Your task to perform on an android device: change text size in settings app Image 0: 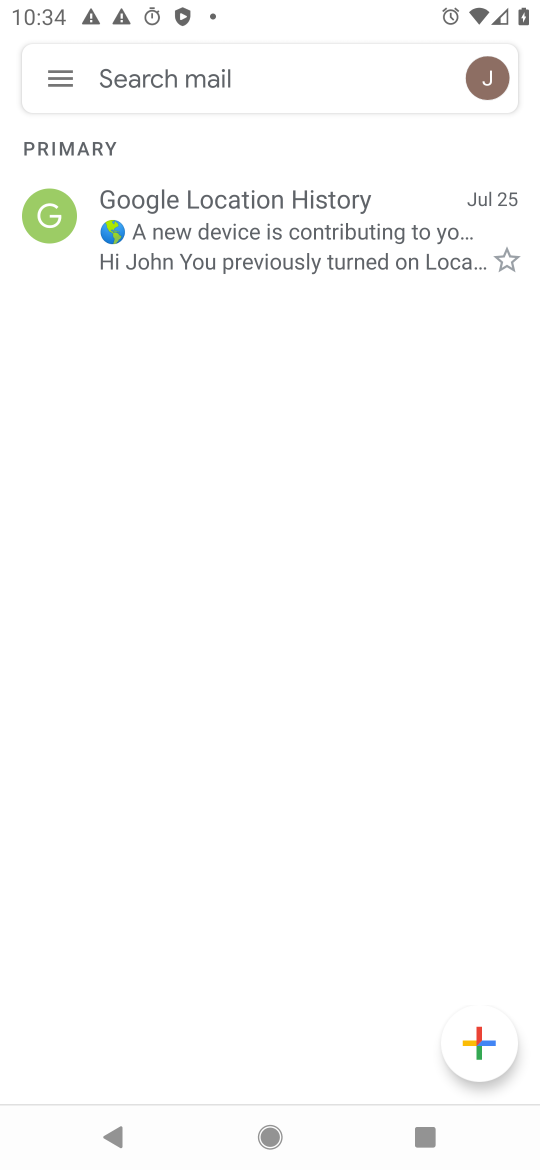
Step 0: drag from (225, 802) to (230, 659)
Your task to perform on an android device: change text size in settings app Image 1: 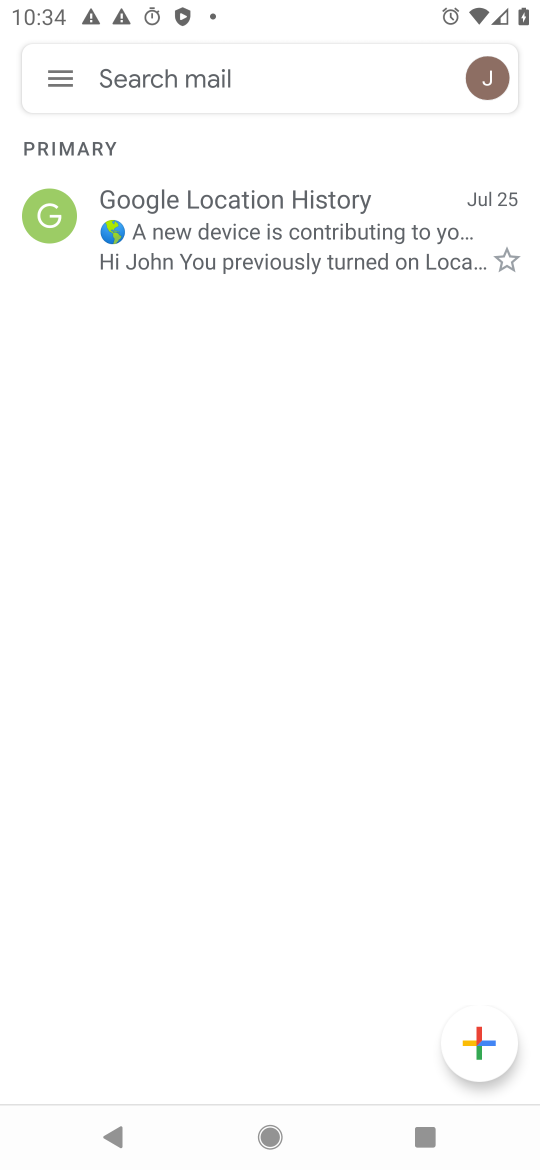
Step 1: drag from (261, 323) to (385, 1044)
Your task to perform on an android device: change text size in settings app Image 2: 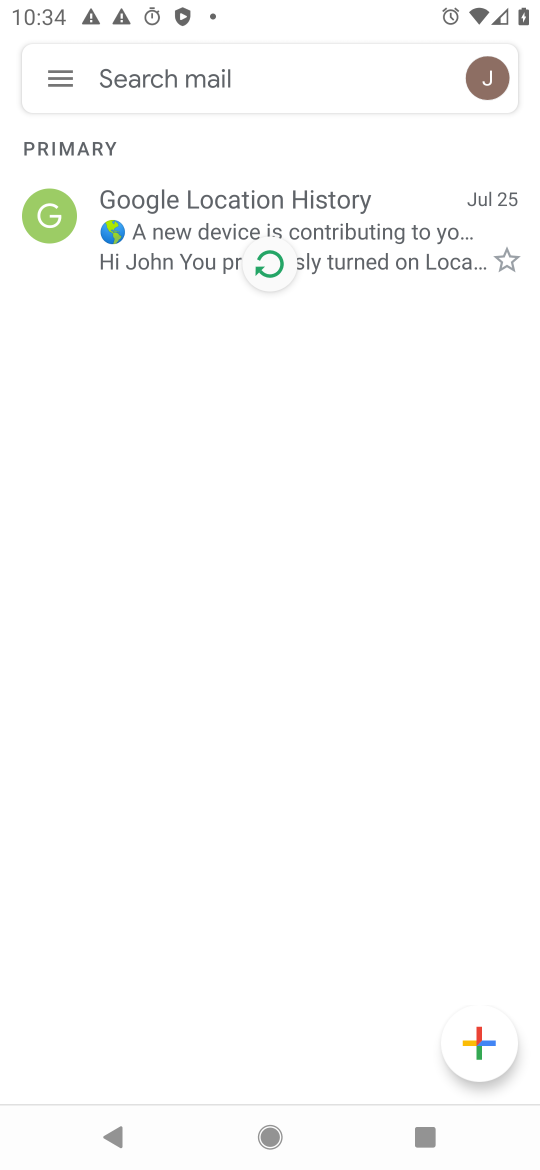
Step 2: drag from (254, 531) to (266, 285)
Your task to perform on an android device: change text size in settings app Image 3: 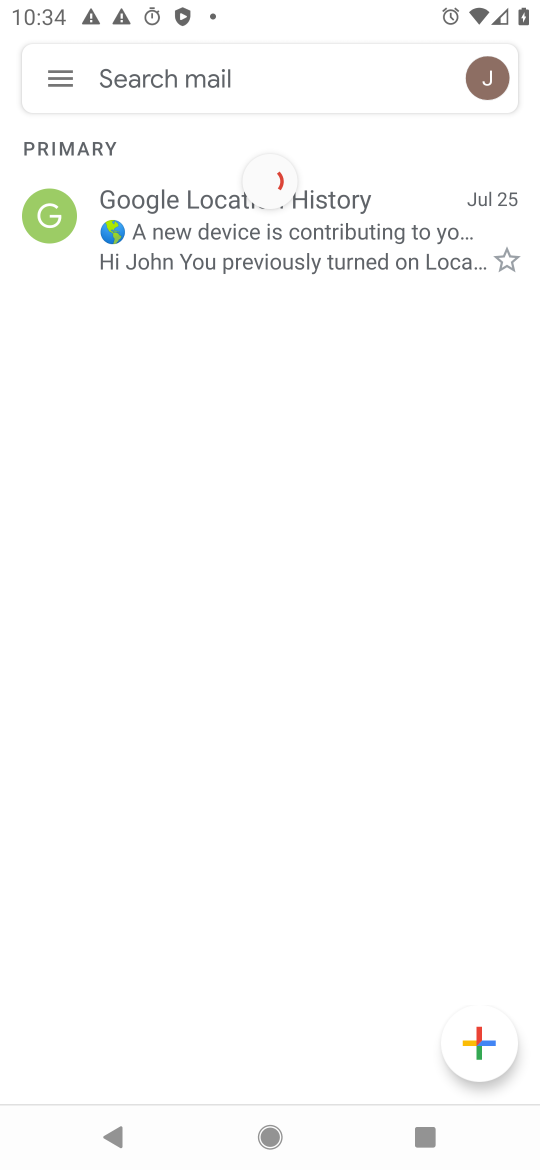
Step 3: drag from (308, 731) to (345, 320)
Your task to perform on an android device: change text size in settings app Image 4: 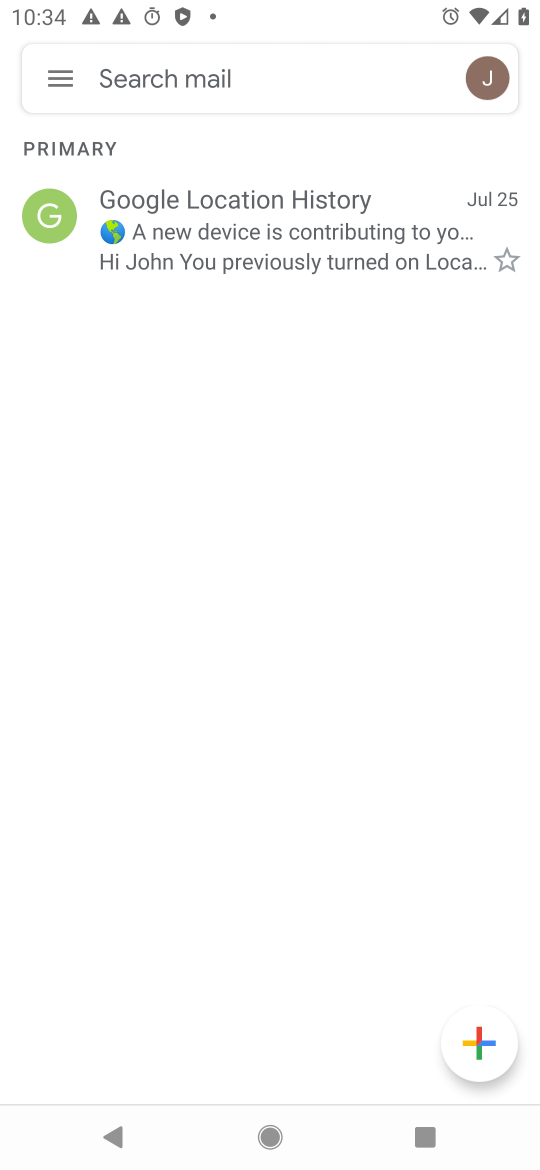
Step 4: drag from (385, 740) to (295, 402)
Your task to perform on an android device: change text size in settings app Image 5: 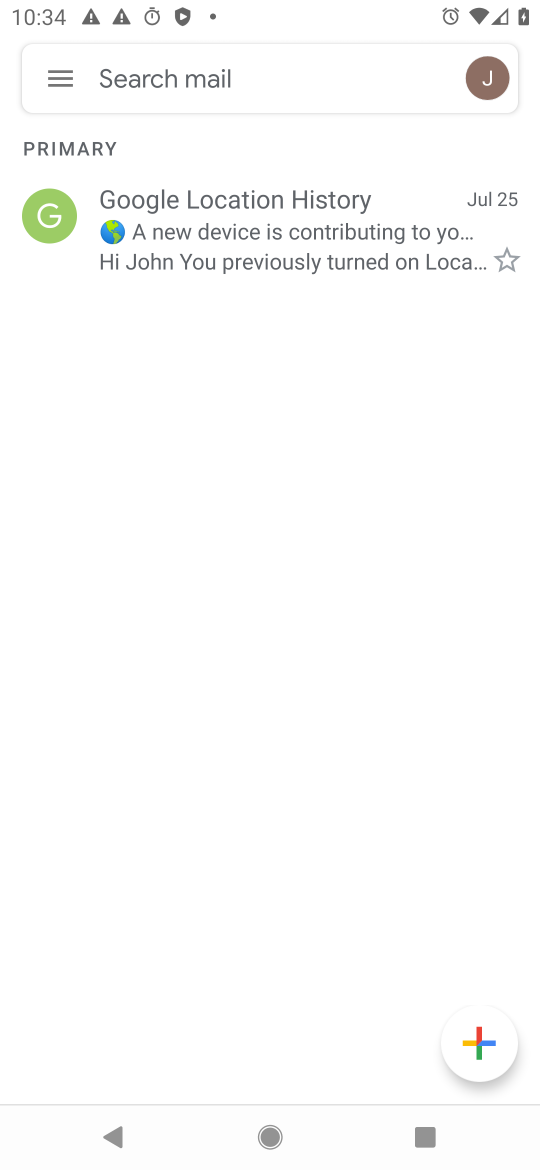
Step 5: drag from (328, 827) to (301, 448)
Your task to perform on an android device: change text size in settings app Image 6: 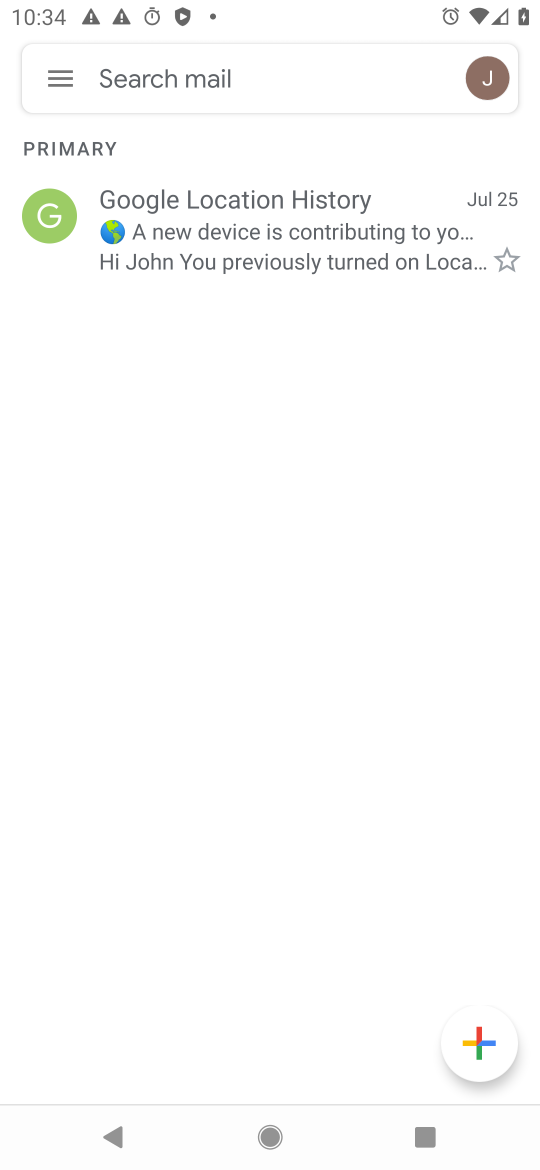
Step 6: drag from (251, 835) to (296, 554)
Your task to perform on an android device: change text size in settings app Image 7: 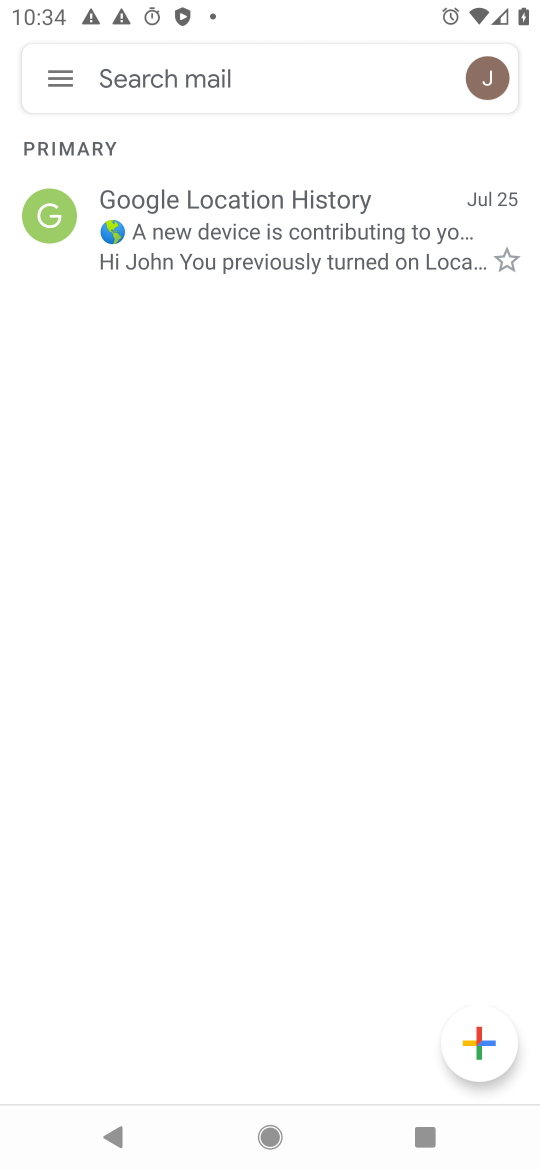
Step 7: drag from (203, 115) to (203, 53)
Your task to perform on an android device: change text size in settings app Image 8: 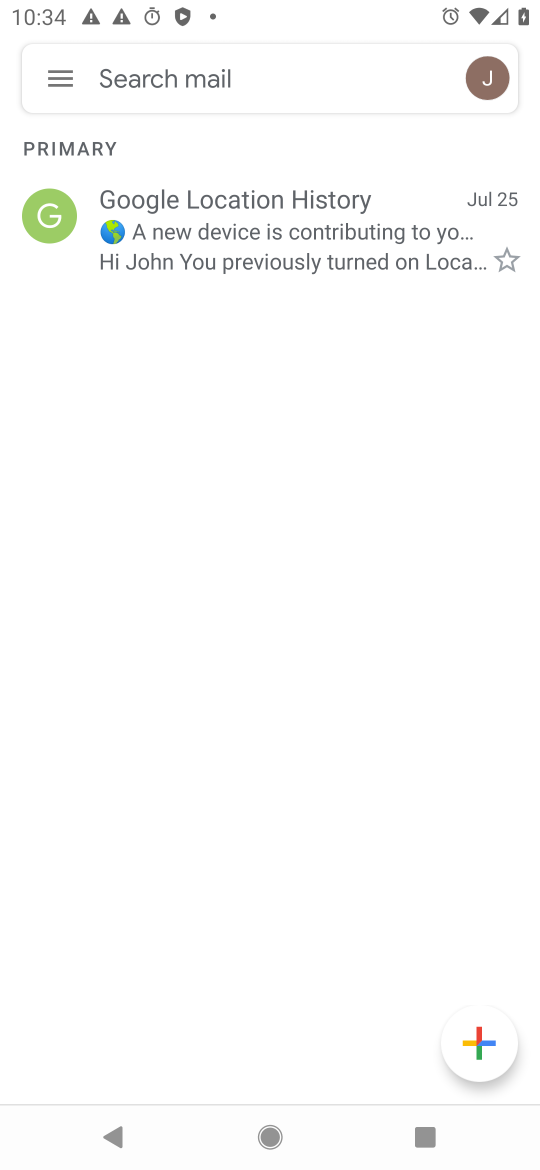
Step 8: click (71, 85)
Your task to perform on an android device: change text size in settings app Image 9: 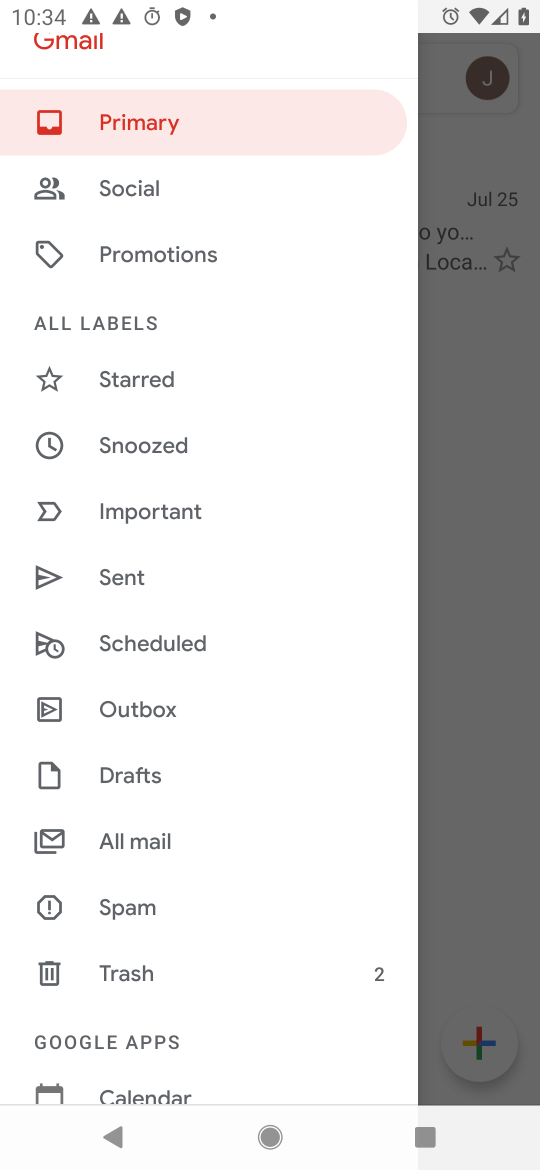
Step 9: press home button
Your task to perform on an android device: change text size in settings app Image 10: 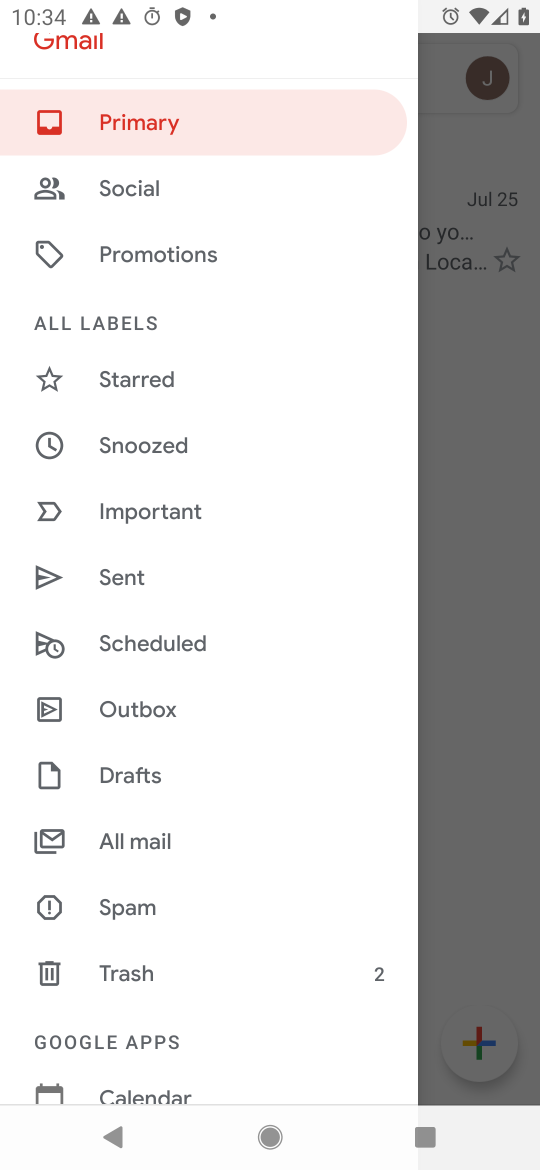
Step 10: press home button
Your task to perform on an android device: change text size in settings app Image 11: 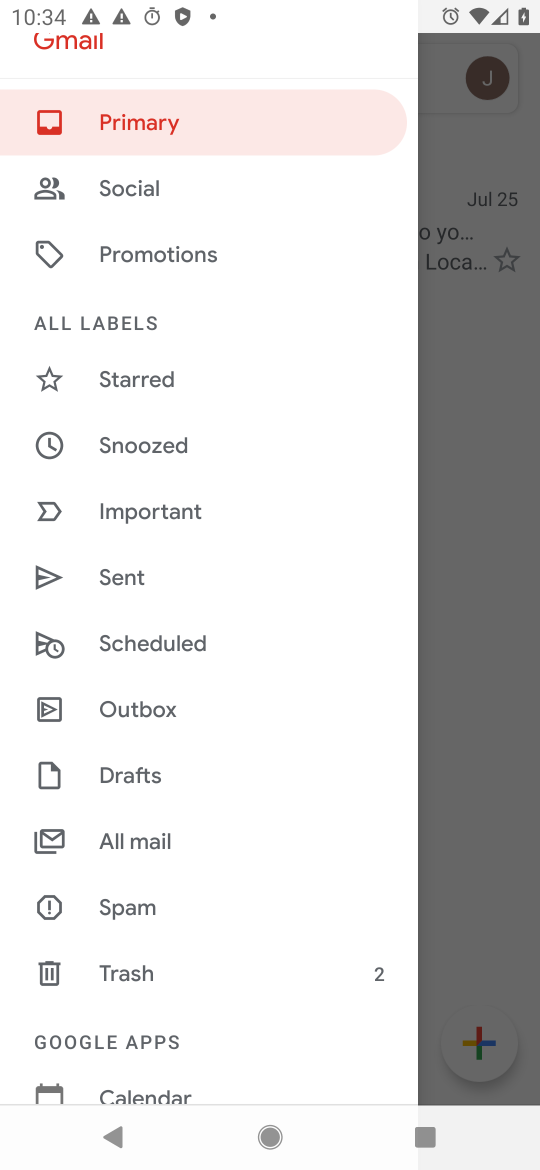
Step 11: click (415, 124)
Your task to perform on an android device: change text size in settings app Image 12: 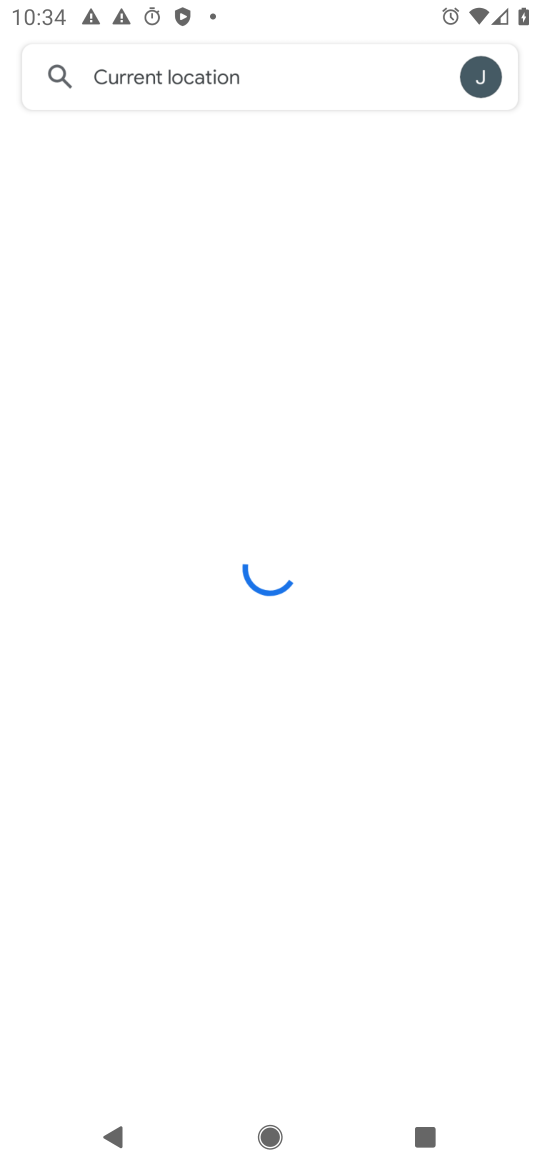
Step 12: drag from (213, 928) to (327, 331)
Your task to perform on an android device: change text size in settings app Image 13: 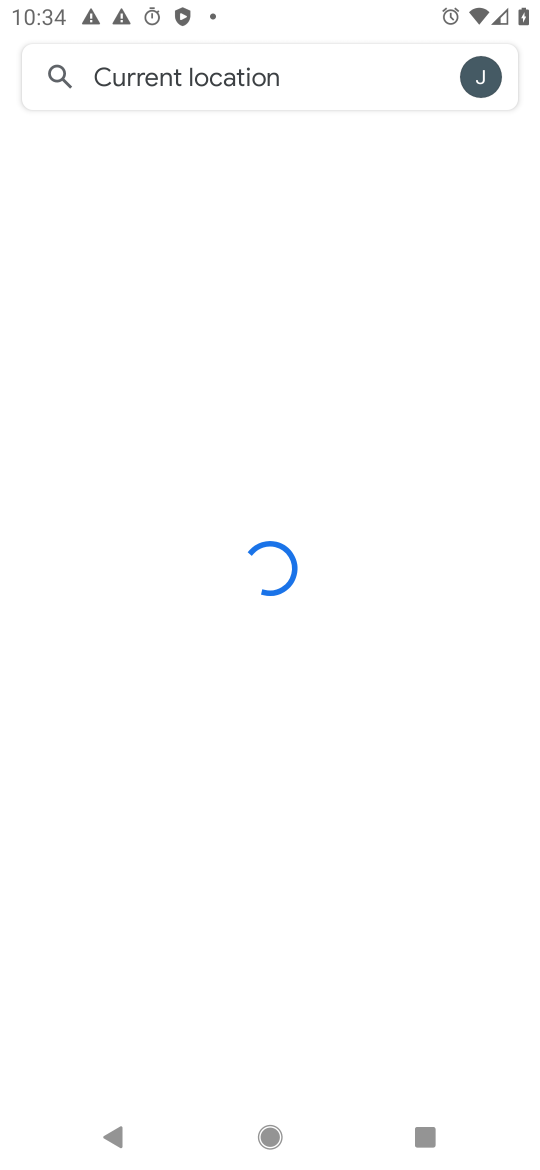
Step 13: press home button
Your task to perform on an android device: change text size in settings app Image 14: 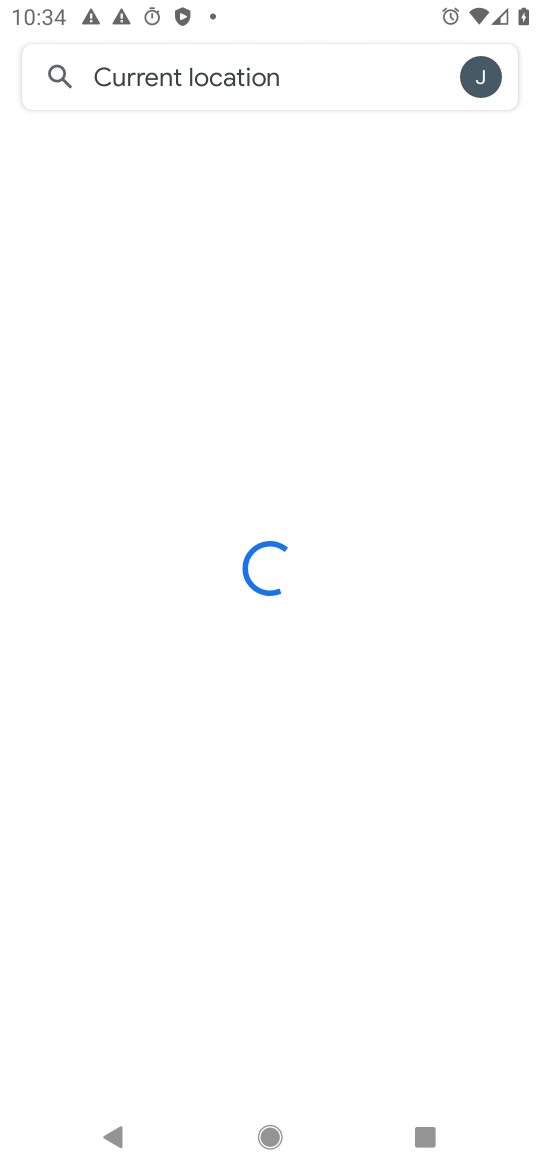
Step 14: press home button
Your task to perform on an android device: change text size in settings app Image 15: 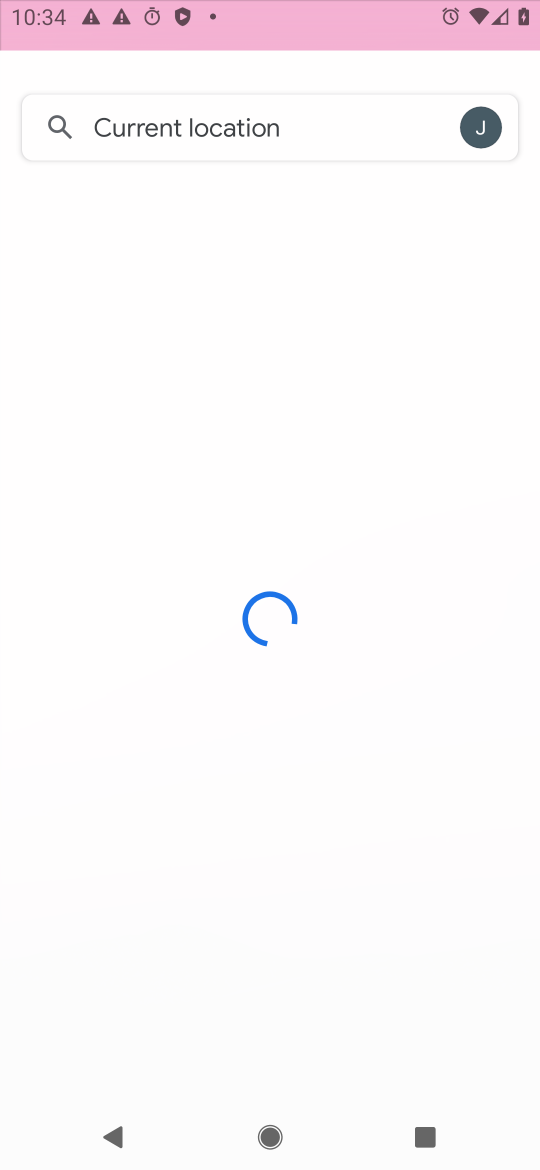
Step 15: click (273, 299)
Your task to perform on an android device: change text size in settings app Image 16: 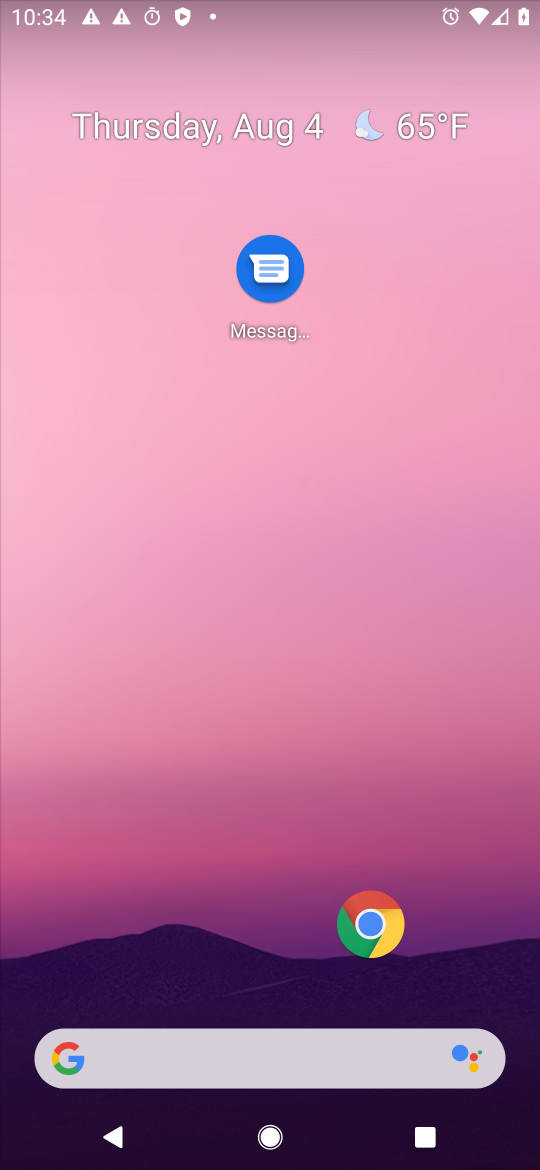
Step 16: drag from (256, 846) to (279, 210)
Your task to perform on an android device: change text size in settings app Image 17: 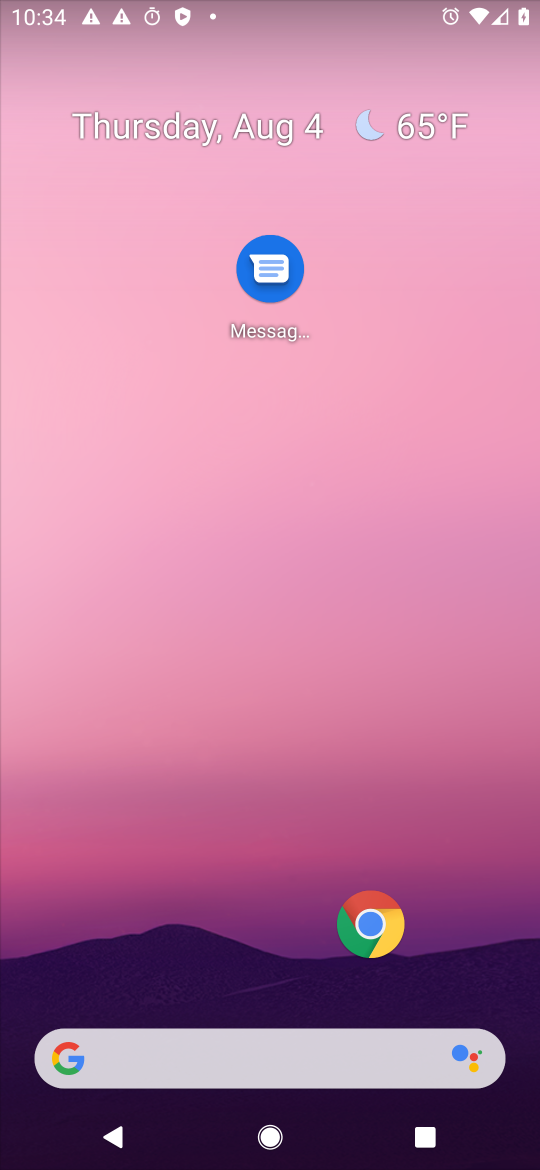
Step 17: drag from (240, 747) to (318, 237)
Your task to perform on an android device: change text size in settings app Image 18: 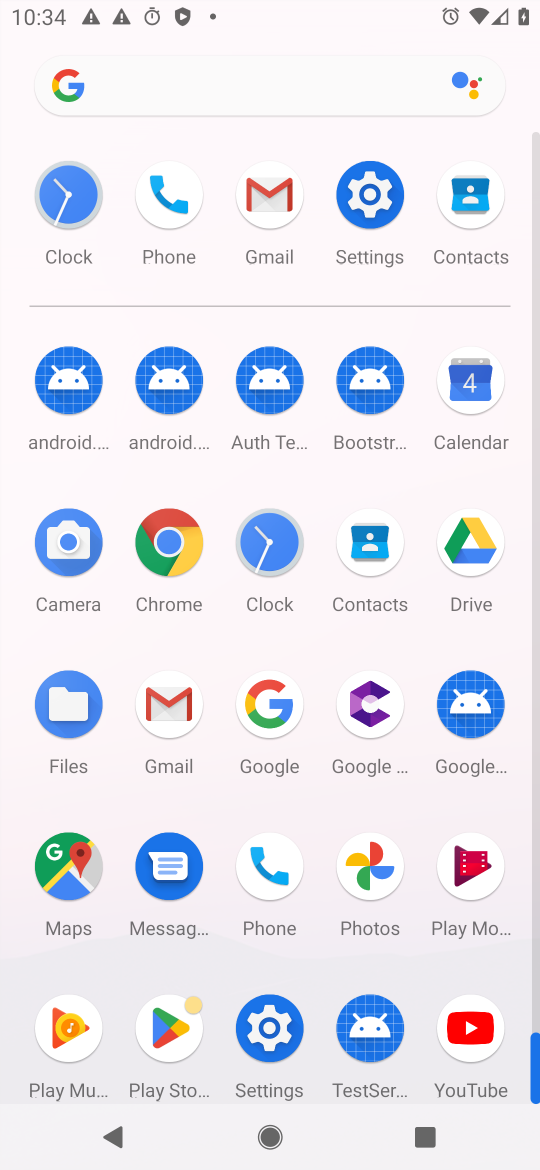
Step 18: click (279, 1020)
Your task to perform on an android device: change text size in settings app Image 19: 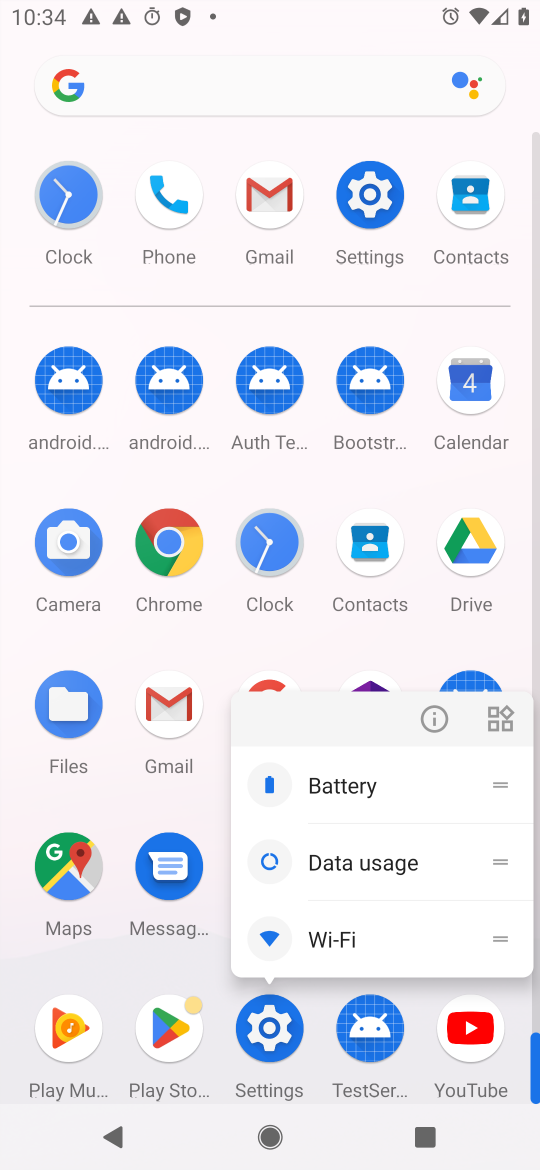
Step 19: click (444, 716)
Your task to perform on an android device: change text size in settings app Image 20: 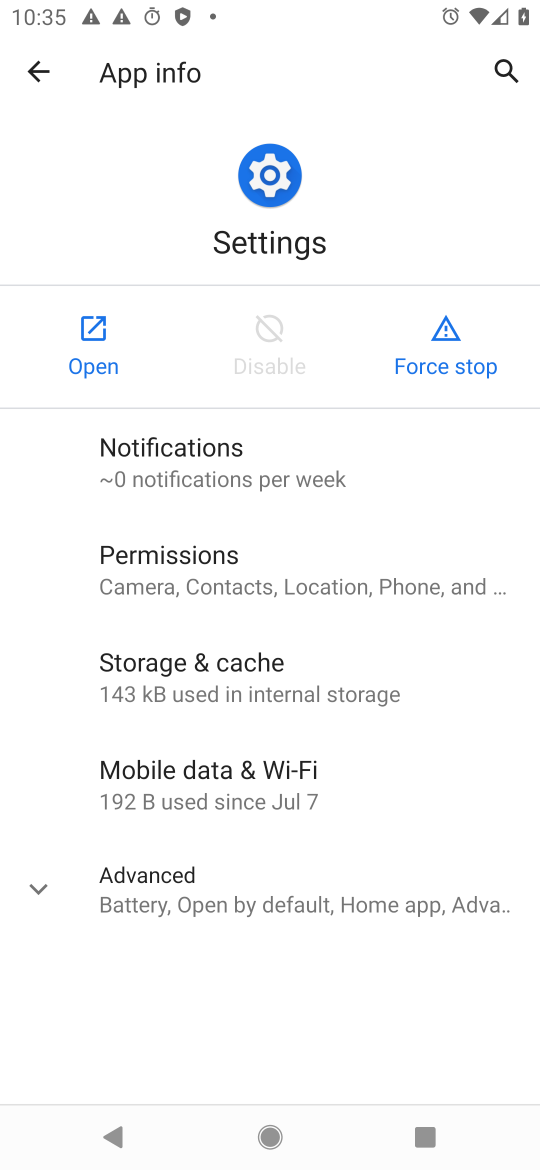
Step 20: click (63, 336)
Your task to perform on an android device: change text size in settings app Image 21: 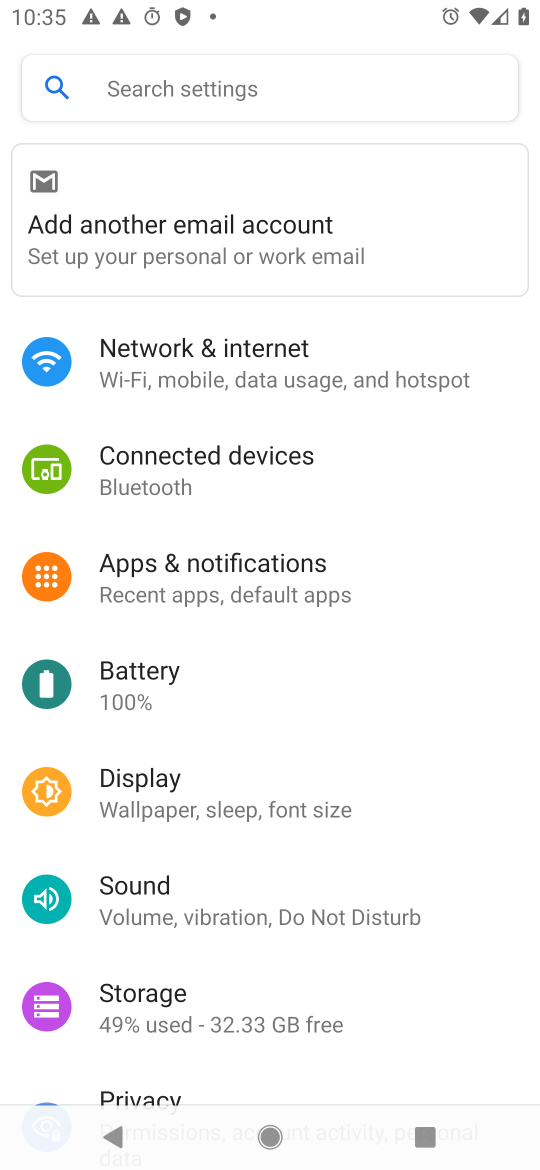
Step 21: drag from (257, 976) to (287, 133)
Your task to perform on an android device: change text size in settings app Image 22: 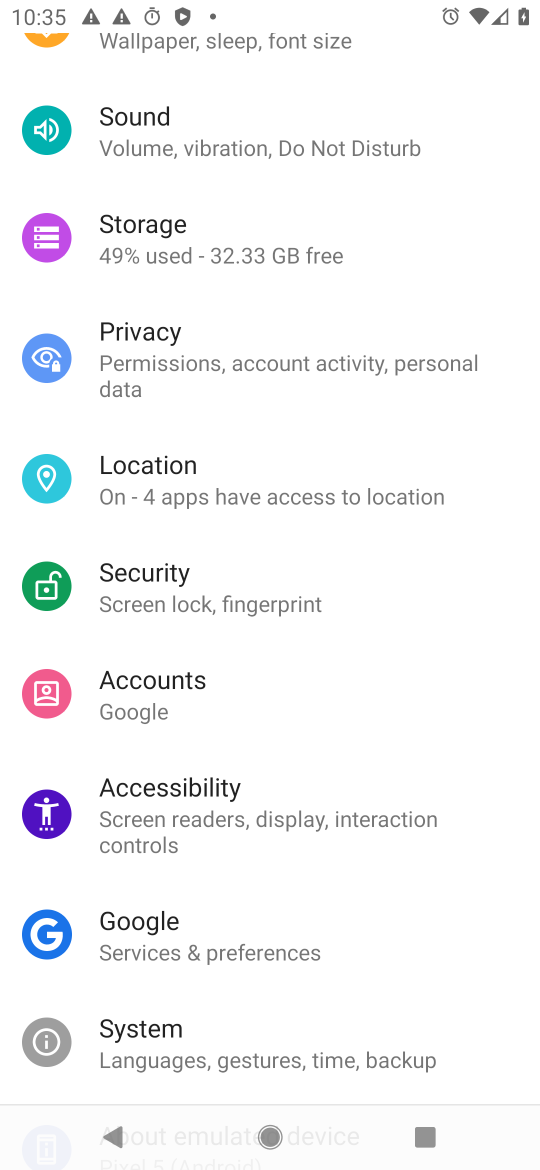
Step 22: drag from (194, 505) to (310, 885)
Your task to perform on an android device: change text size in settings app Image 23: 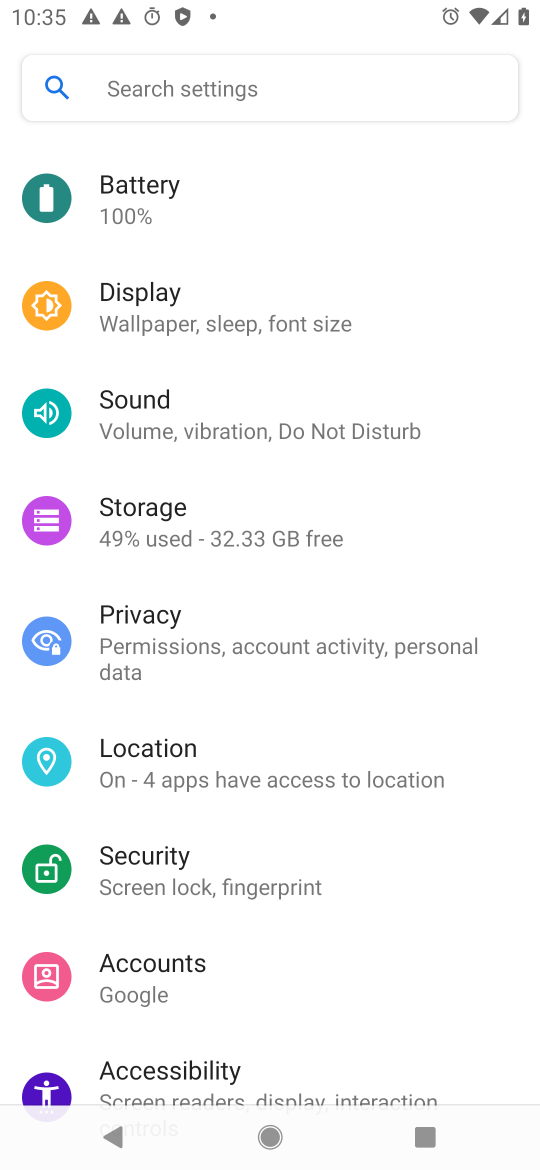
Step 23: click (154, 326)
Your task to perform on an android device: change text size in settings app Image 24: 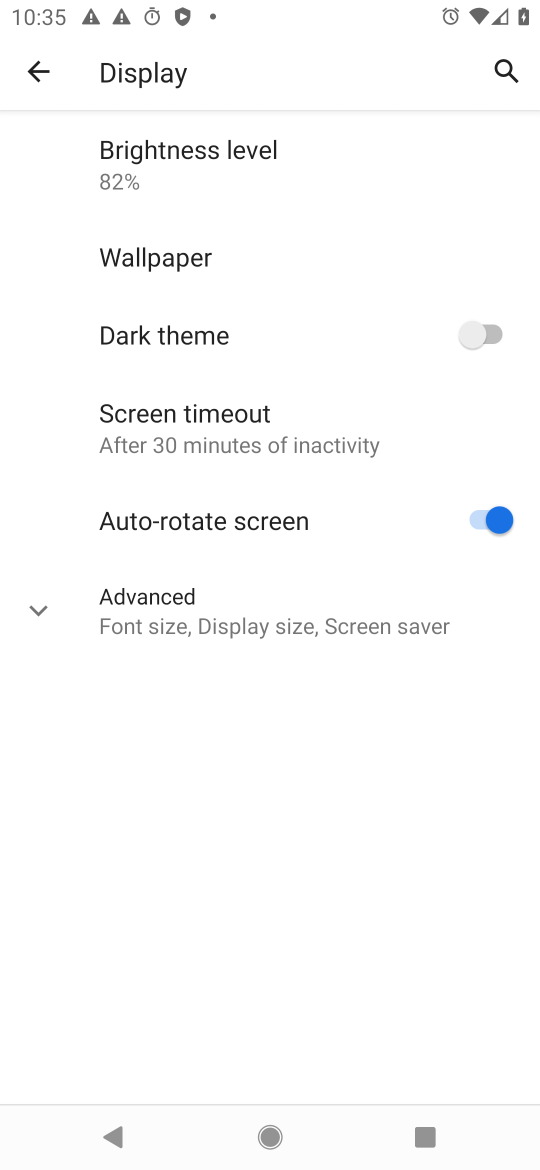
Step 24: drag from (310, 531) to (302, 383)
Your task to perform on an android device: change text size in settings app Image 25: 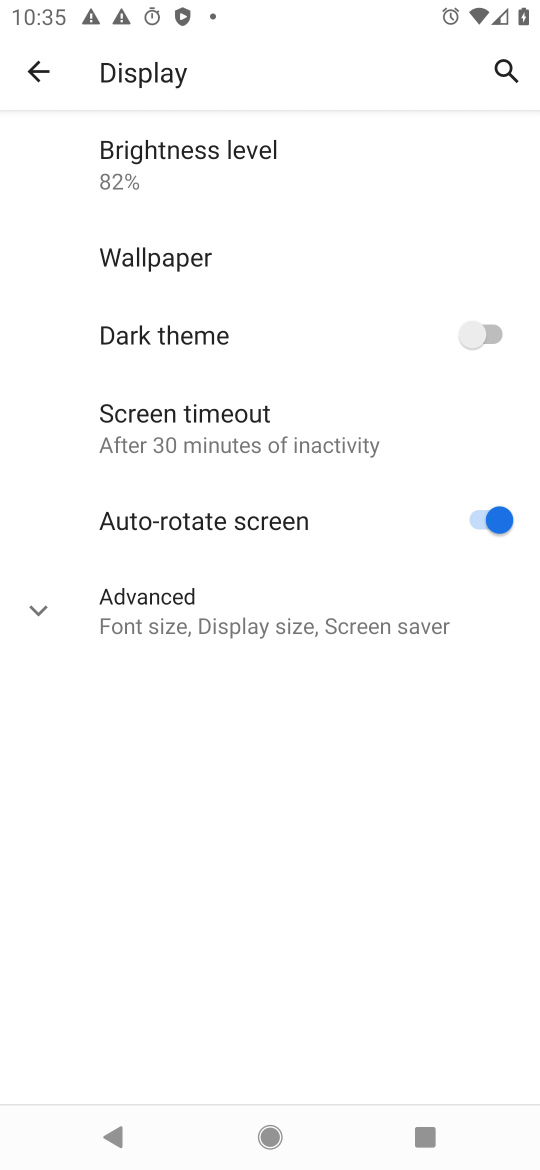
Step 25: click (200, 633)
Your task to perform on an android device: change text size in settings app Image 26: 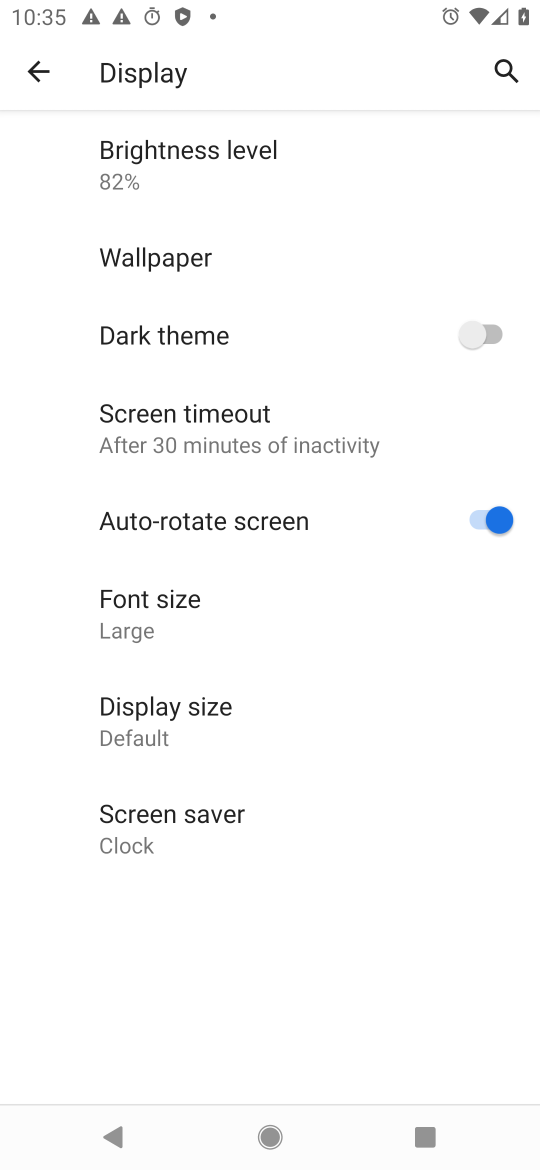
Step 26: click (223, 617)
Your task to perform on an android device: change text size in settings app Image 27: 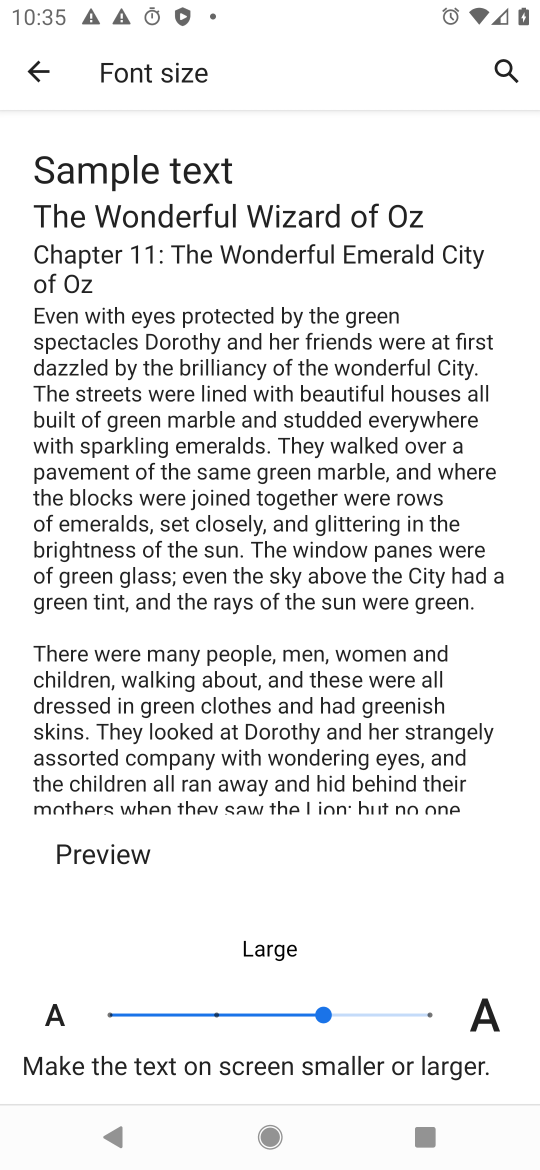
Step 27: click (408, 1003)
Your task to perform on an android device: change text size in settings app Image 28: 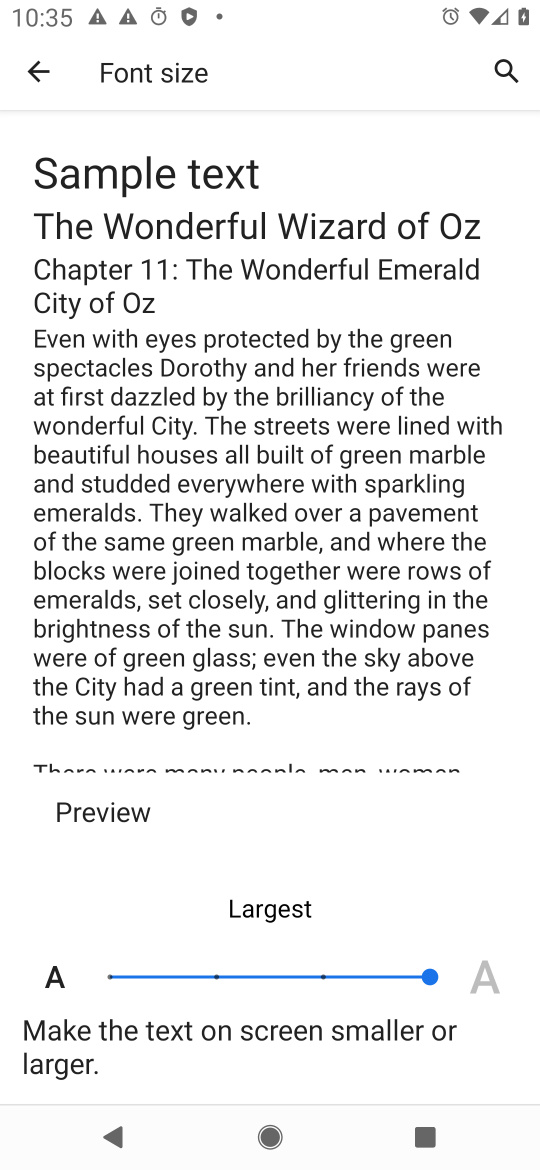
Step 28: click (192, 972)
Your task to perform on an android device: change text size in settings app Image 29: 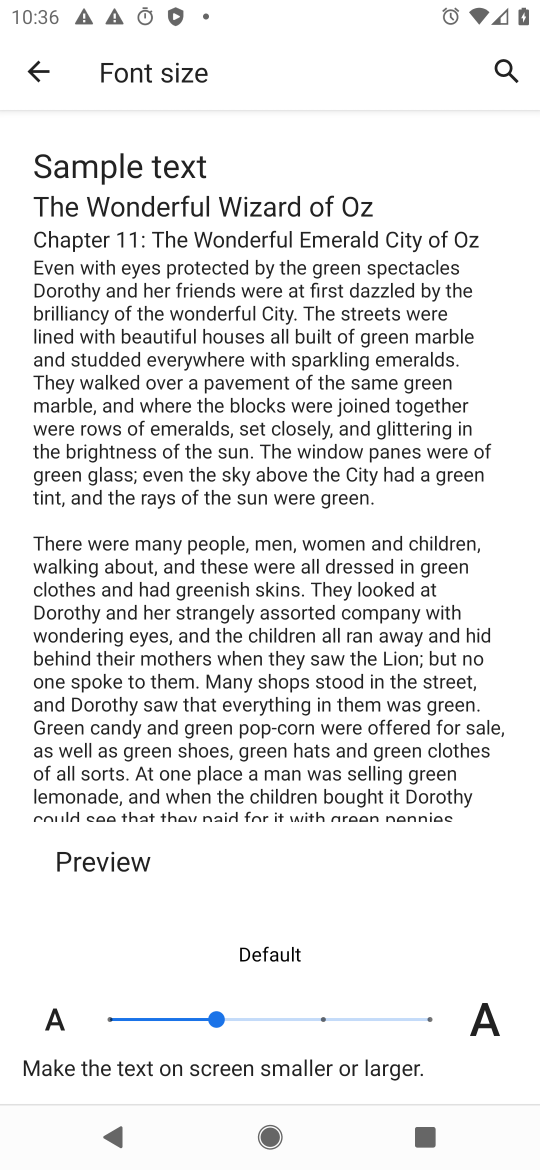
Step 29: drag from (333, 912) to (315, 633)
Your task to perform on an android device: change text size in settings app Image 30: 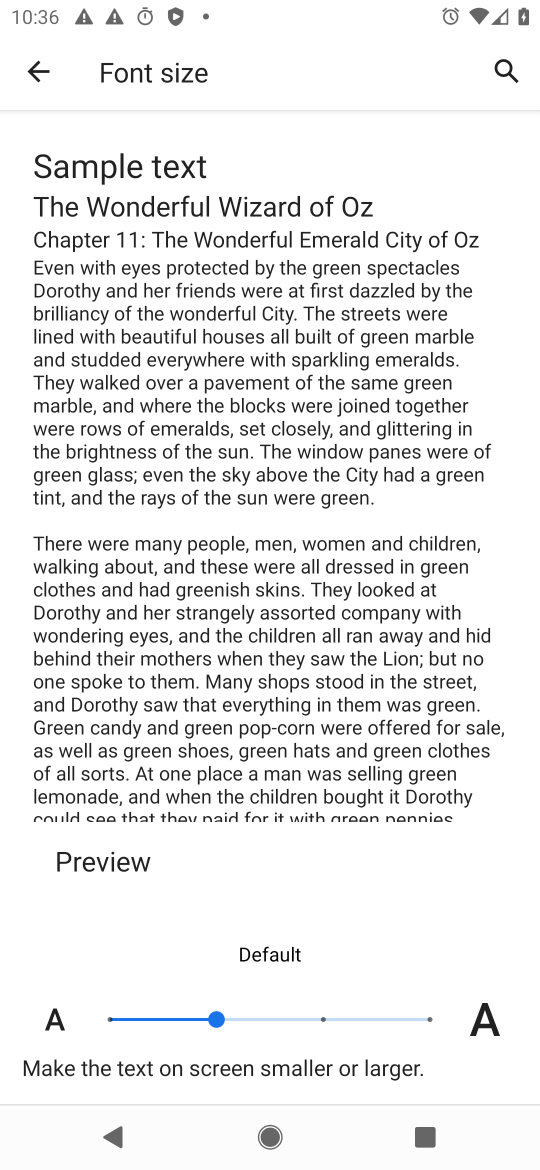
Step 30: drag from (235, 894) to (237, 686)
Your task to perform on an android device: change text size in settings app Image 31: 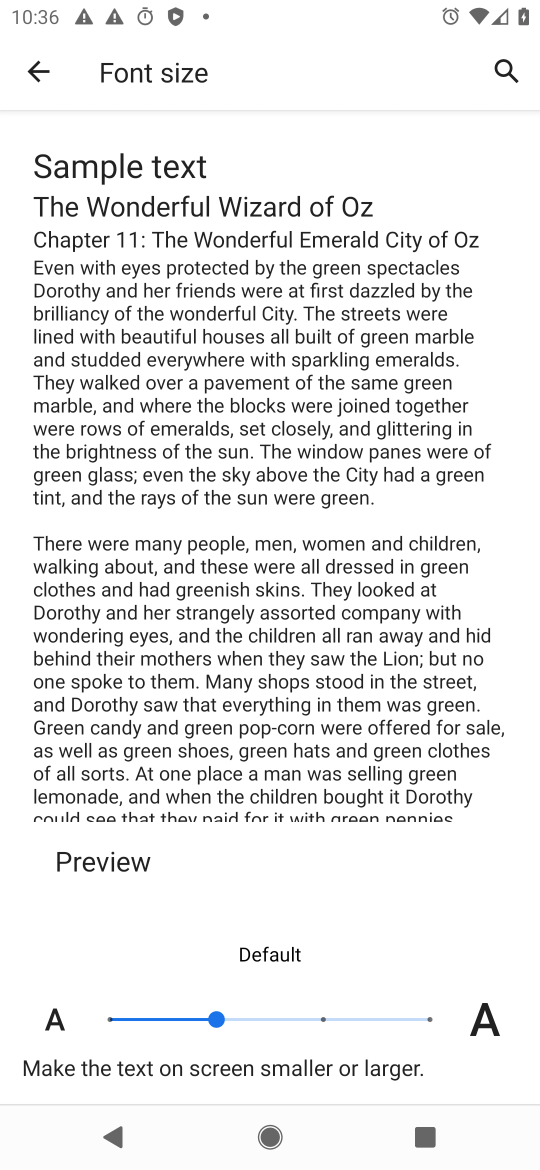
Step 31: drag from (277, 951) to (281, 726)
Your task to perform on an android device: change text size in settings app Image 32: 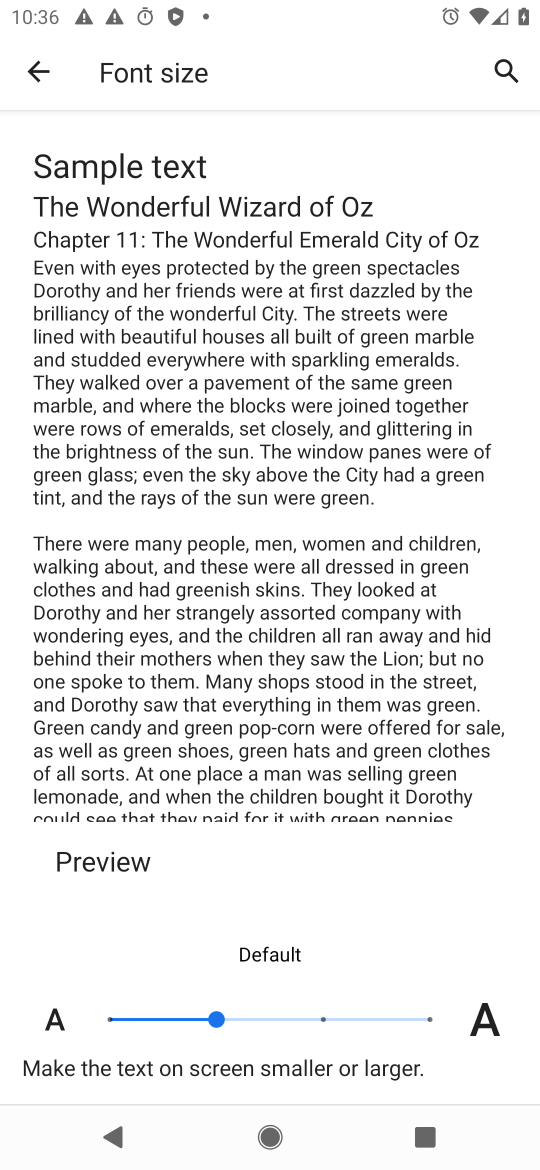
Step 32: drag from (253, 923) to (233, 588)
Your task to perform on an android device: change text size in settings app Image 33: 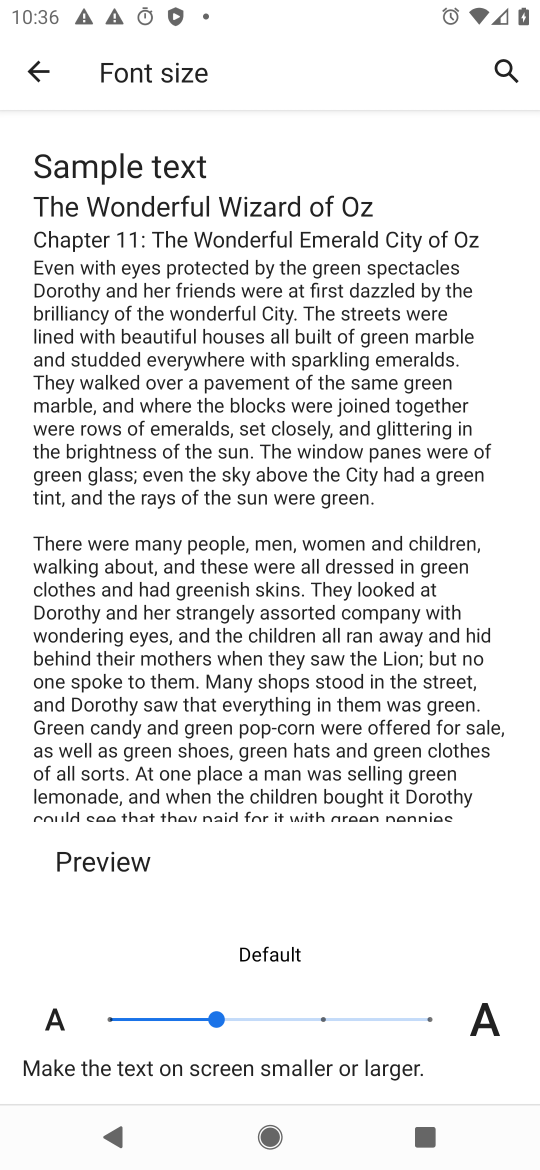
Step 33: drag from (201, 886) to (266, 432)
Your task to perform on an android device: change text size in settings app Image 34: 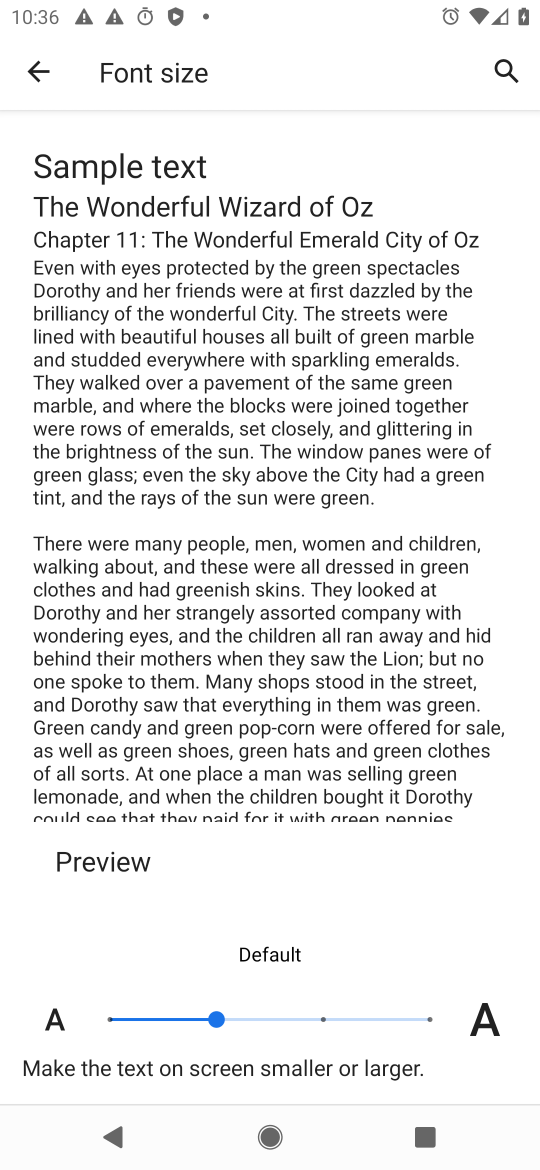
Step 34: click (315, 1013)
Your task to perform on an android device: change text size in settings app Image 35: 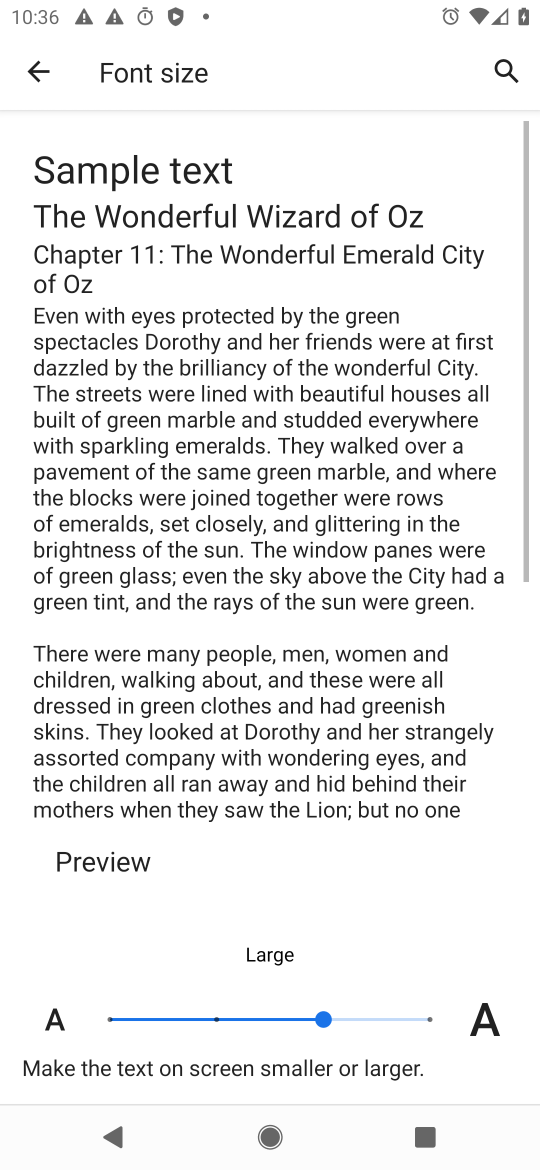
Step 35: task complete